Your task to perform on an android device: see creations saved in the google photos Image 0: 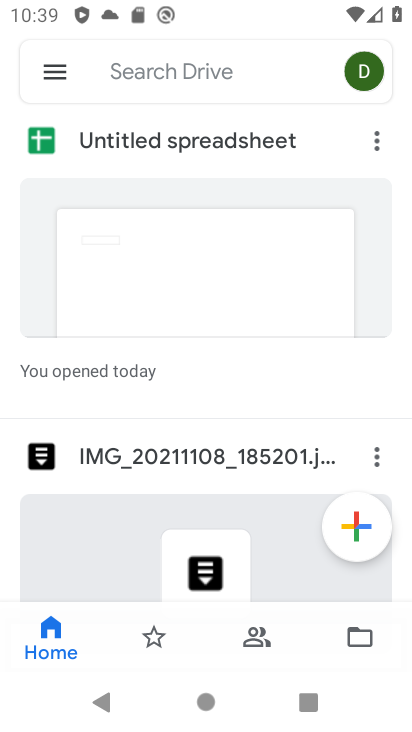
Step 0: press home button
Your task to perform on an android device: see creations saved in the google photos Image 1: 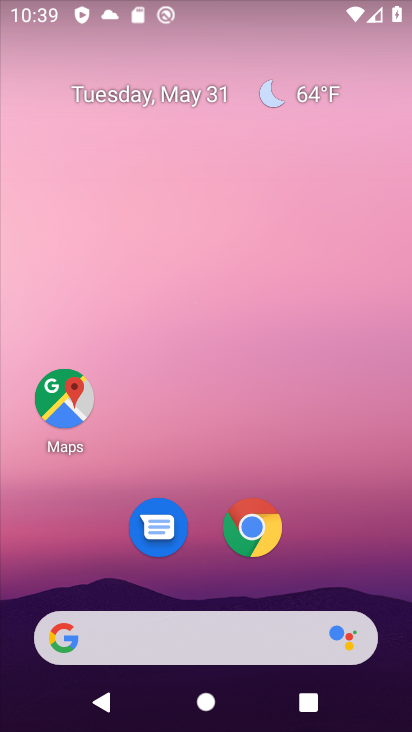
Step 1: drag from (171, 720) to (306, 9)
Your task to perform on an android device: see creations saved in the google photos Image 2: 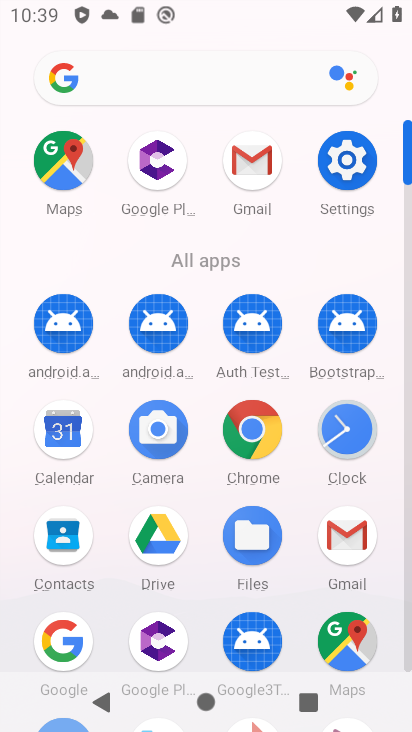
Step 2: drag from (187, 619) to (269, 246)
Your task to perform on an android device: see creations saved in the google photos Image 3: 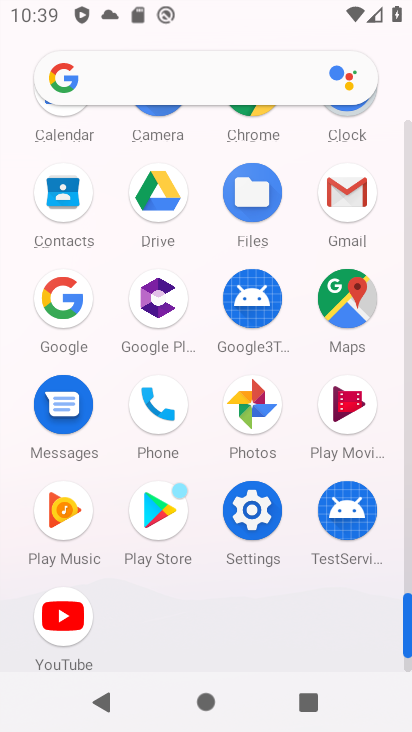
Step 3: click (238, 400)
Your task to perform on an android device: see creations saved in the google photos Image 4: 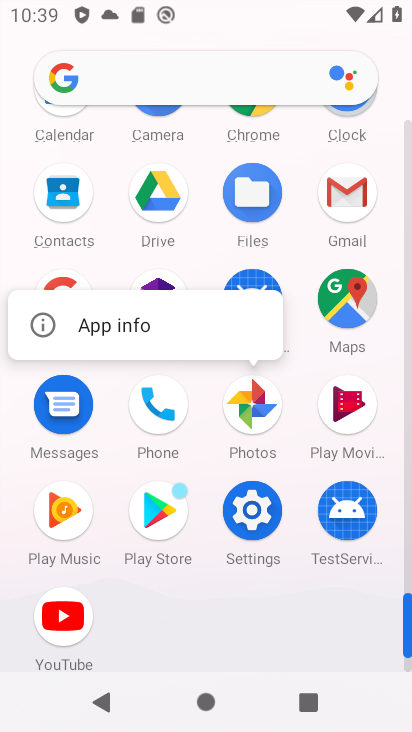
Step 4: click (252, 411)
Your task to perform on an android device: see creations saved in the google photos Image 5: 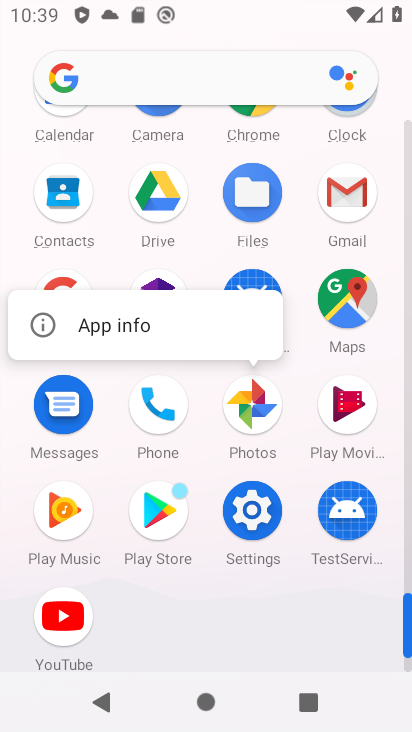
Step 5: click (252, 411)
Your task to perform on an android device: see creations saved in the google photos Image 6: 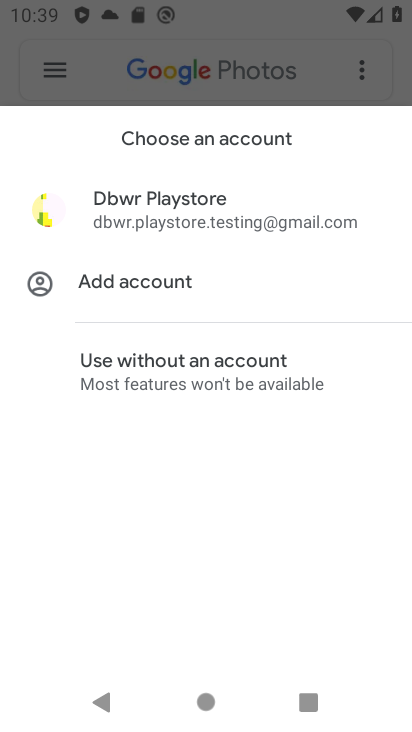
Step 6: click (304, 65)
Your task to perform on an android device: see creations saved in the google photos Image 7: 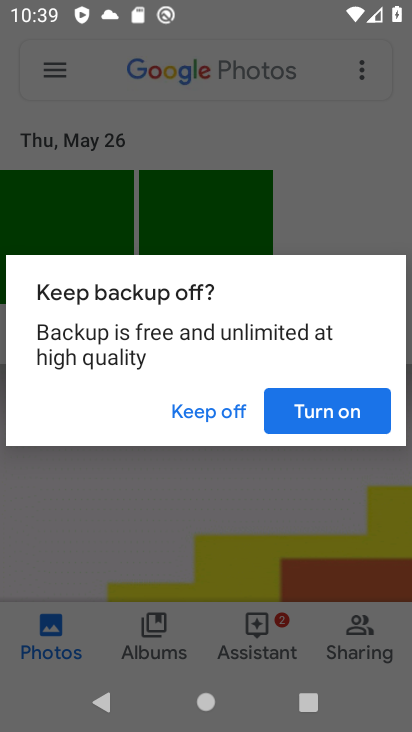
Step 7: click (304, 420)
Your task to perform on an android device: see creations saved in the google photos Image 8: 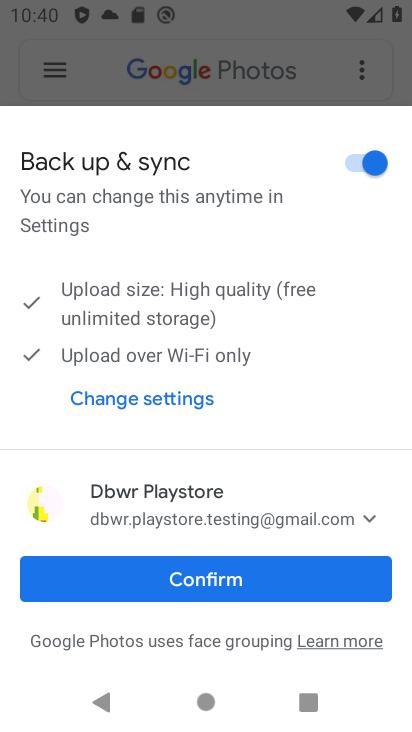
Step 8: click (228, 577)
Your task to perform on an android device: see creations saved in the google photos Image 9: 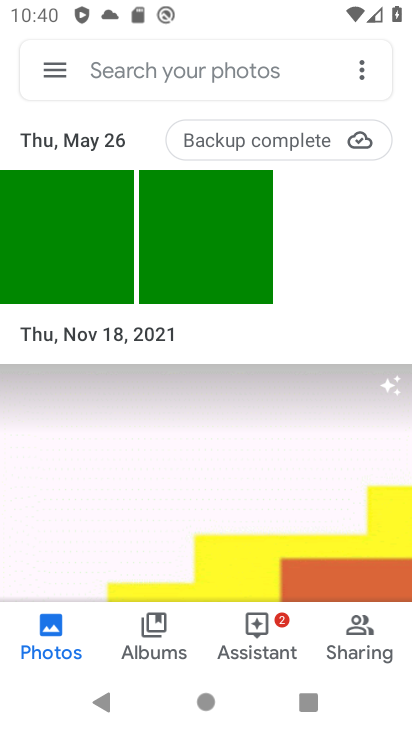
Step 9: click (132, 73)
Your task to perform on an android device: see creations saved in the google photos Image 10: 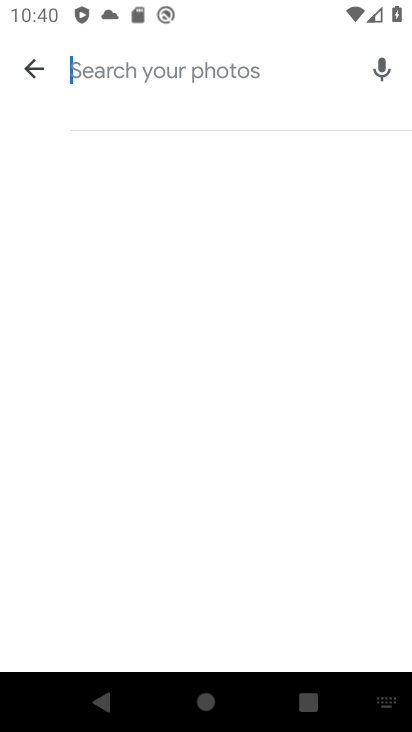
Step 10: click (36, 60)
Your task to perform on an android device: see creations saved in the google photos Image 11: 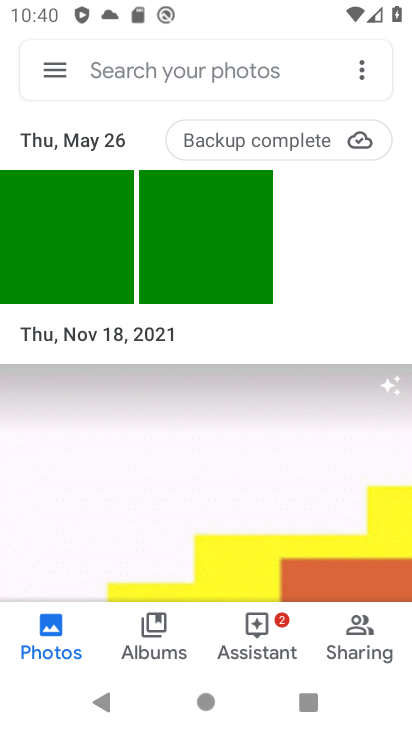
Step 11: click (125, 65)
Your task to perform on an android device: see creations saved in the google photos Image 12: 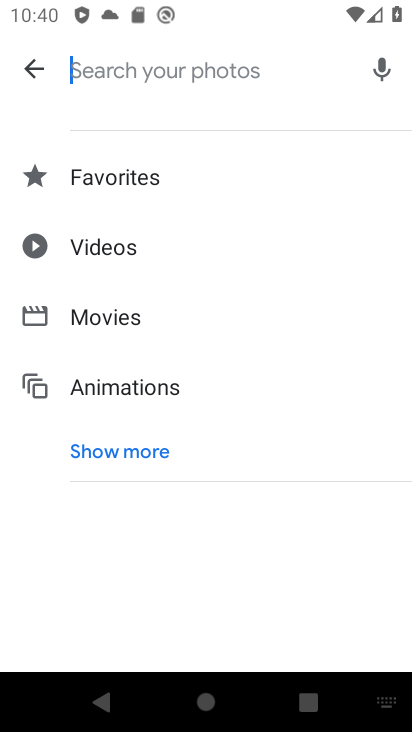
Step 12: click (138, 452)
Your task to perform on an android device: see creations saved in the google photos Image 13: 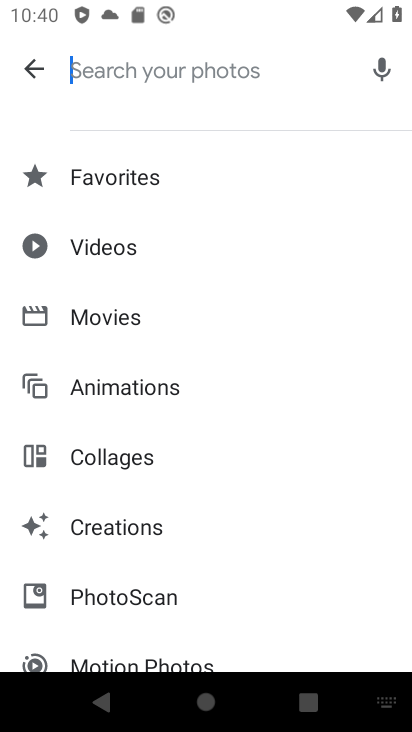
Step 13: click (115, 525)
Your task to perform on an android device: see creations saved in the google photos Image 14: 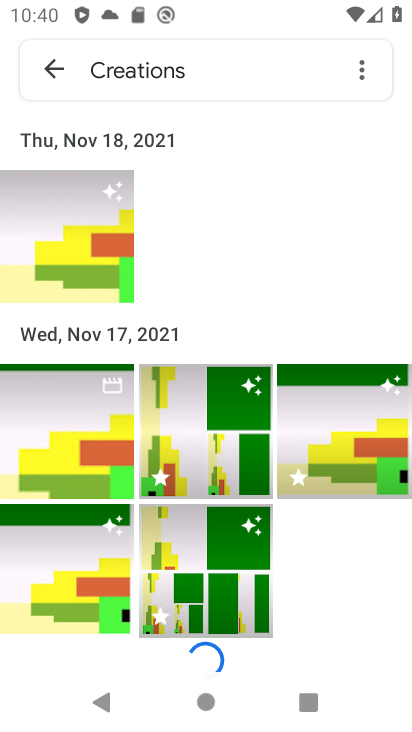
Step 14: task complete